Your task to perform on an android device: What's the weather going to be this weekend? Image 0: 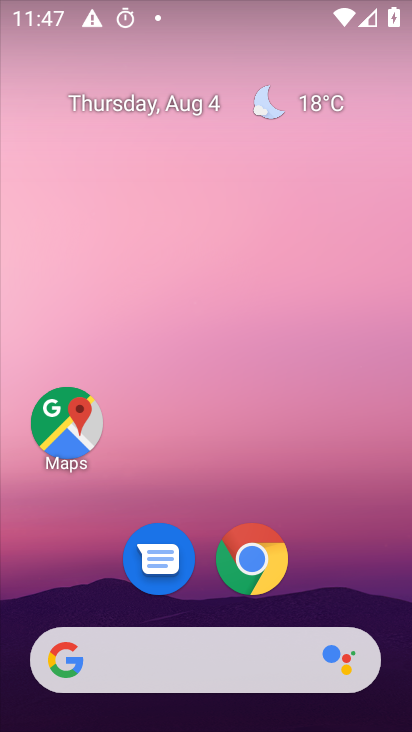
Step 0: click (165, 683)
Your task to perform on an android device: What's the weather going to be this weekend? Image 1: 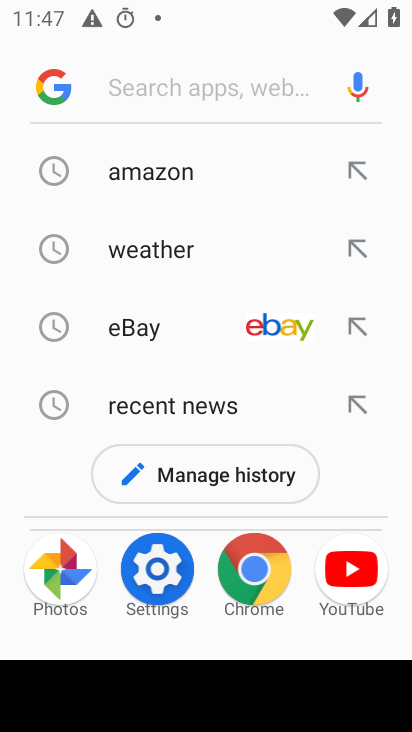
Step 1: type "What's the weather going to be this weekend?"
Your task to perform on an android device: What's the weather going to be this weekend? Image 2: 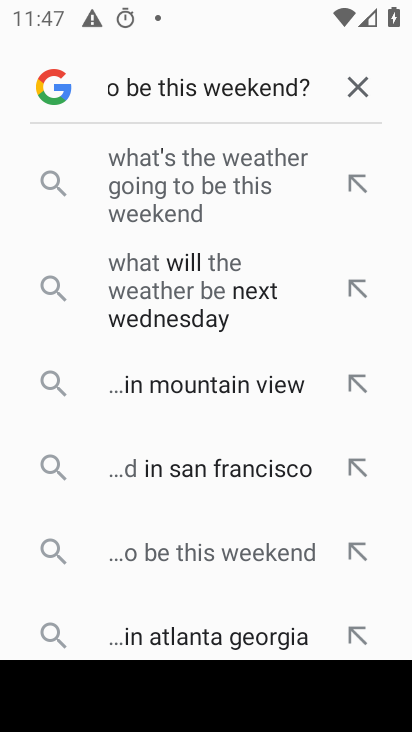
Step 2: type ""
Your task to perform on an android device: What's the weather going to be this weekend? Image 3: 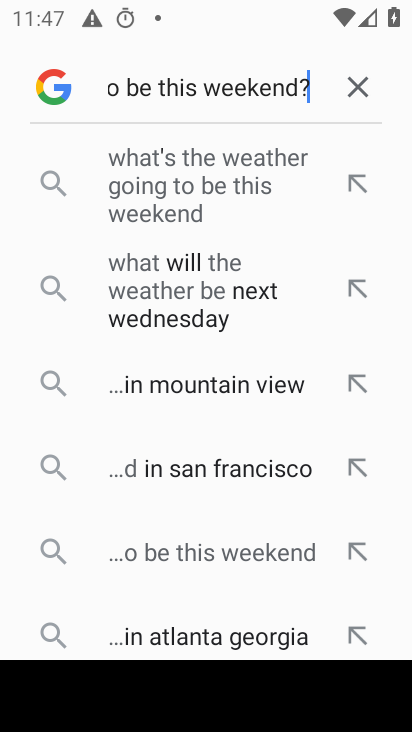
Step 3: type ""
Your task to perform on an android device: What's the weather going to be this weekend? Image 4: 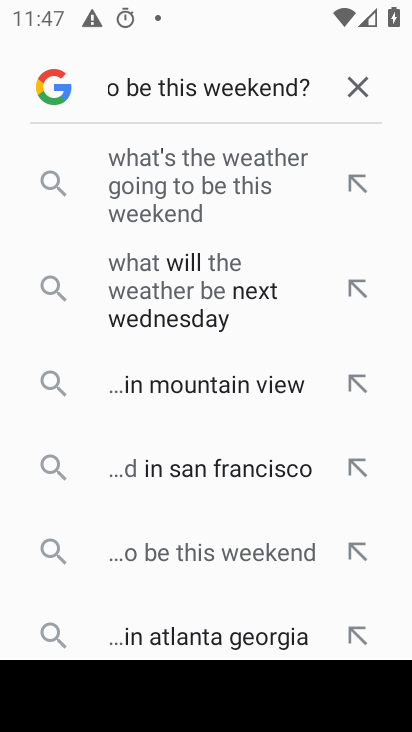
Step 4: task complete